Your task to perform on an android device: Check the weather Image 0: 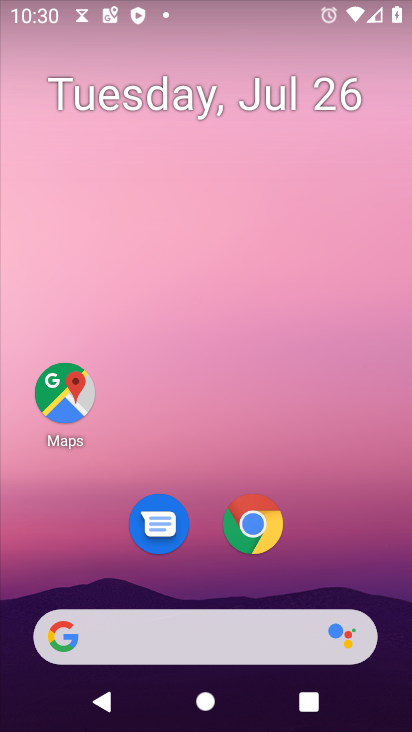
Step 0: press home button
Your task to perform on an android device: Check the weather Image 1: 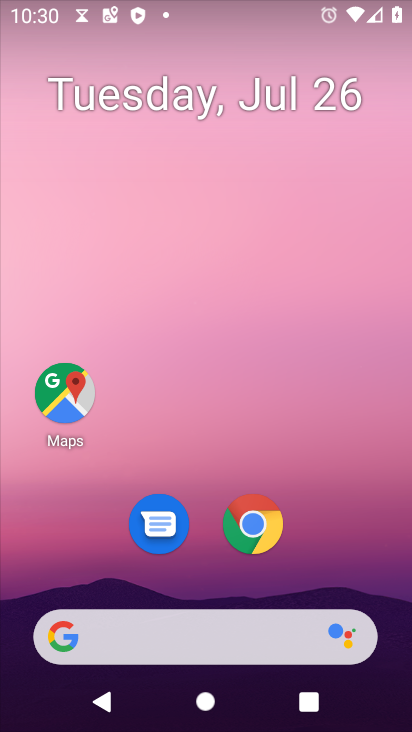
Step 1: click (137, 638)
Your task to perform on an android device: Check the weather Image 2: 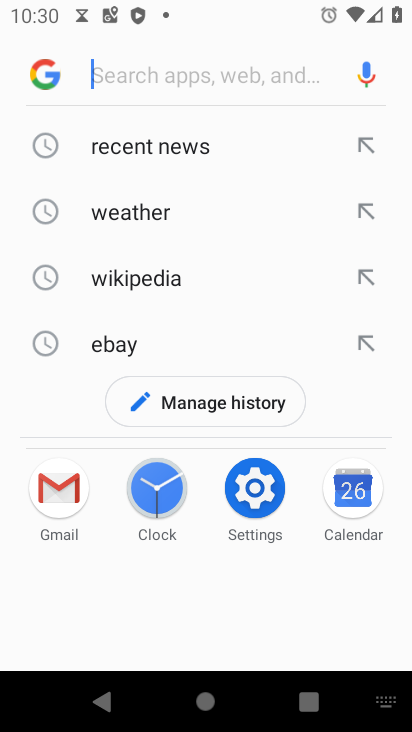
Step 2: click (140, 209)
Your task to perform on an android device: Check the weather Image 3: 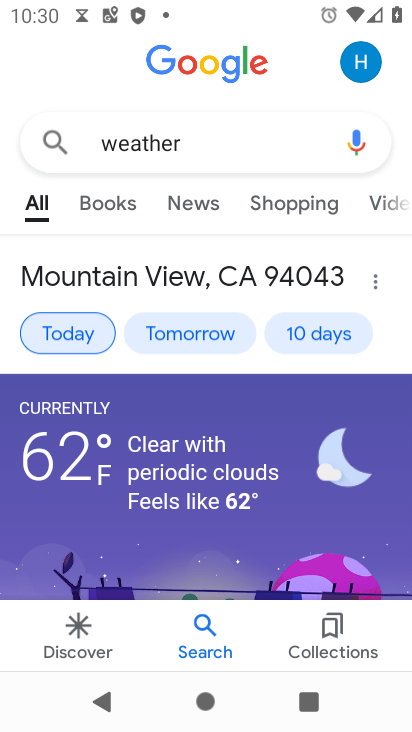
Step 3: task complete